Your task to perform on an android device: Clear all items from cart on newegg. Search for bose soundlink on newegg, select the first entry, add it to the cart, then select checkout. Image 0: 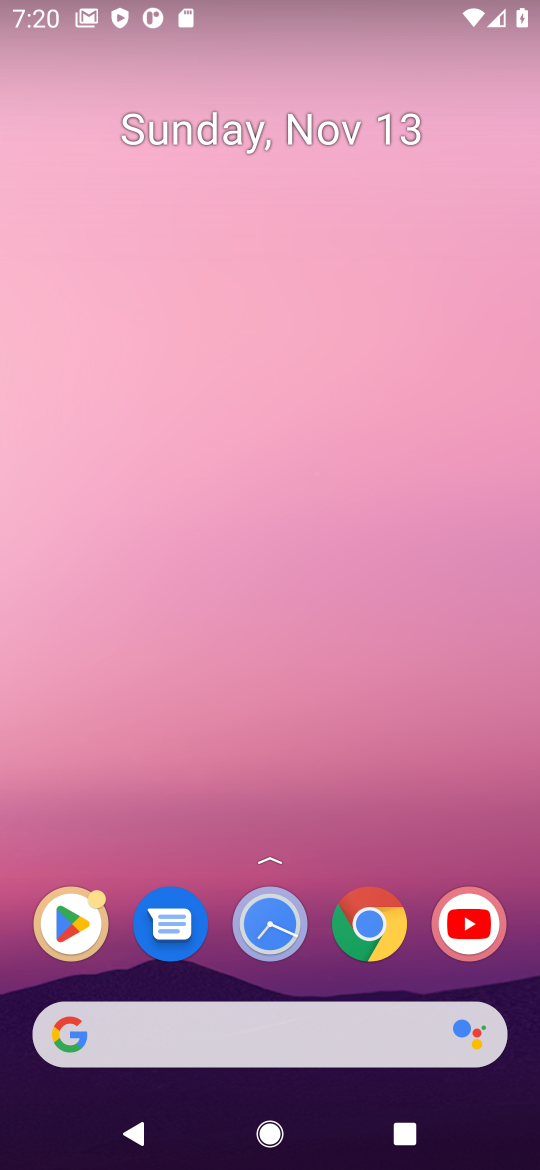
Step 0: click (367, 917)
Your task to perform on an android device: Clear all items from cart on newegg. Search for bose soundlink on newegg, select the first entry, add it to the cart, then select checkout. Image 1: 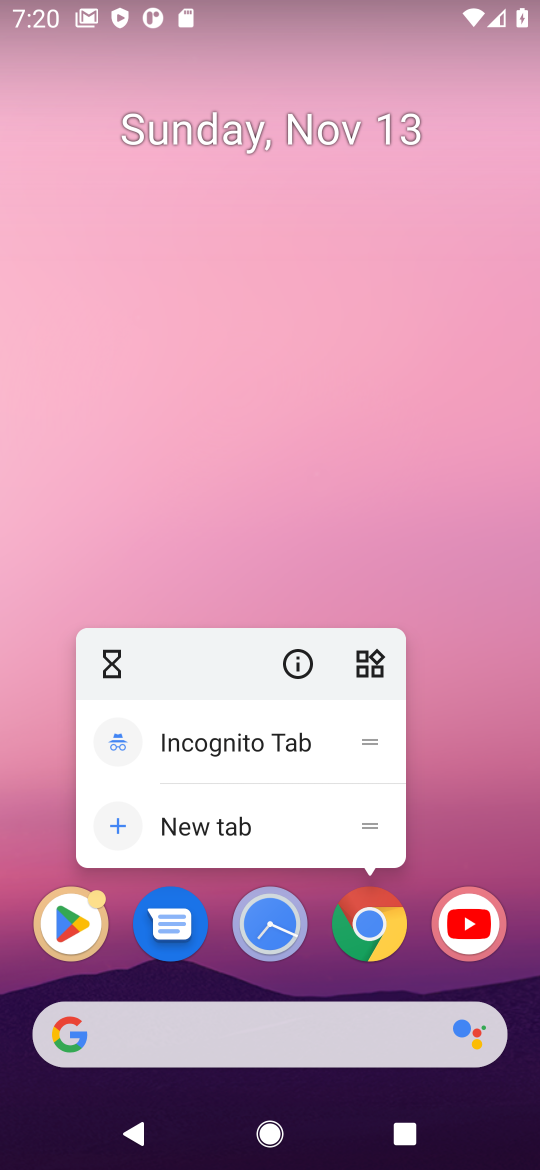
Step 1: click (367, 922)
Your task to perform on an android device: Clear all items from cart on newegg. Search for bose soundlink on newegg, select the first entry, add it to the cart, then select checkout. Image 2: 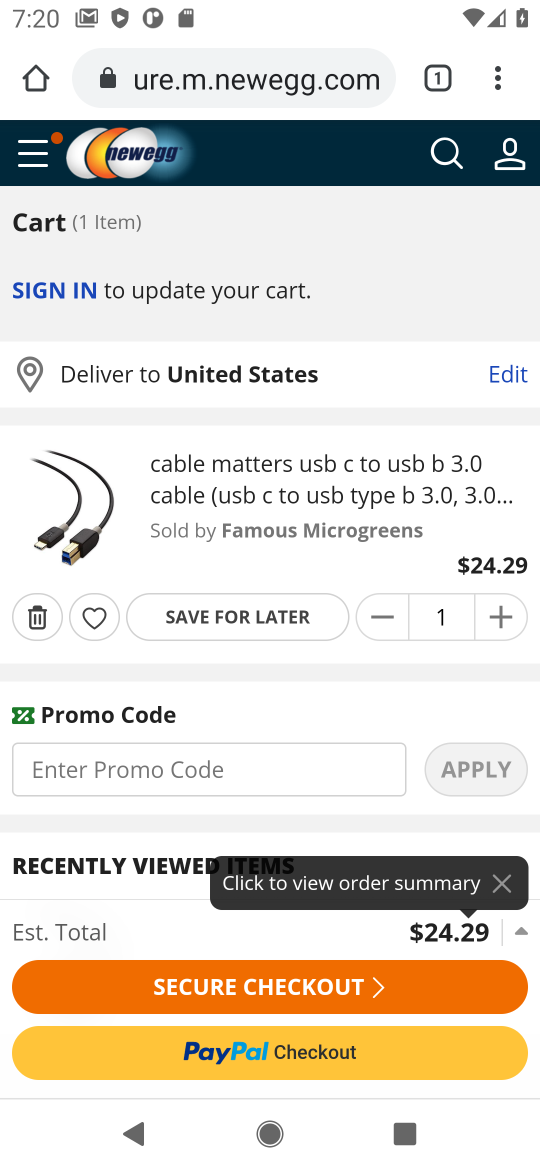
Step 2: click (33, 608)
Your task to perform on an android device: Clear all items from cart on newegg. Search for bose soundlink on newegg, select the first entry, add it to the cart, then select checkout. Image 3: 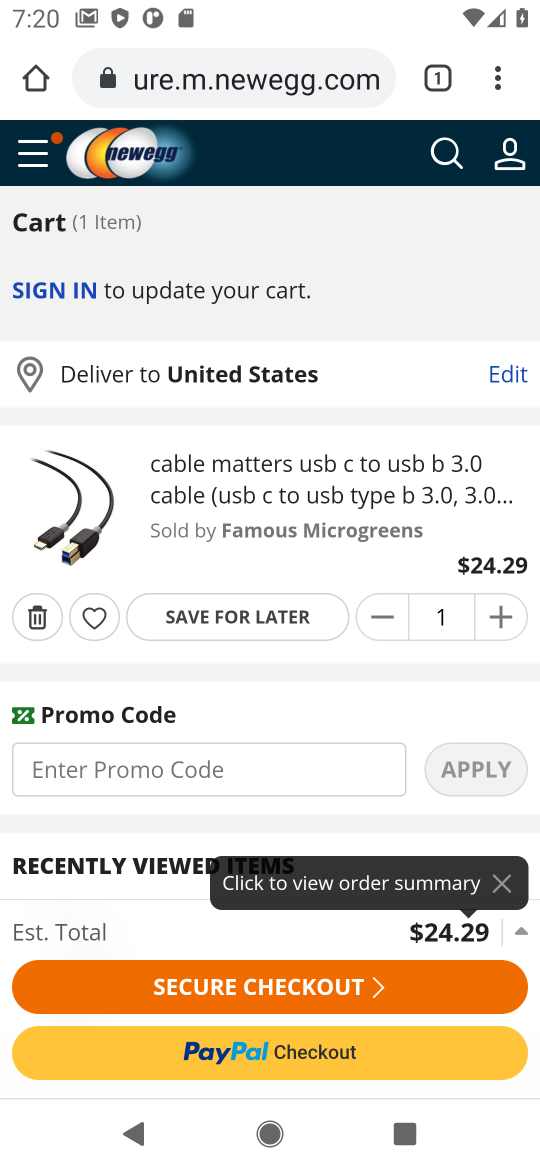
Step 3: click (37, 617)
Your task to perform on an android device: Clear all items from cart on newegg. Search for bose soundlink on newegg, select the first entry, add it to the cart, then select checkout. Image 4: 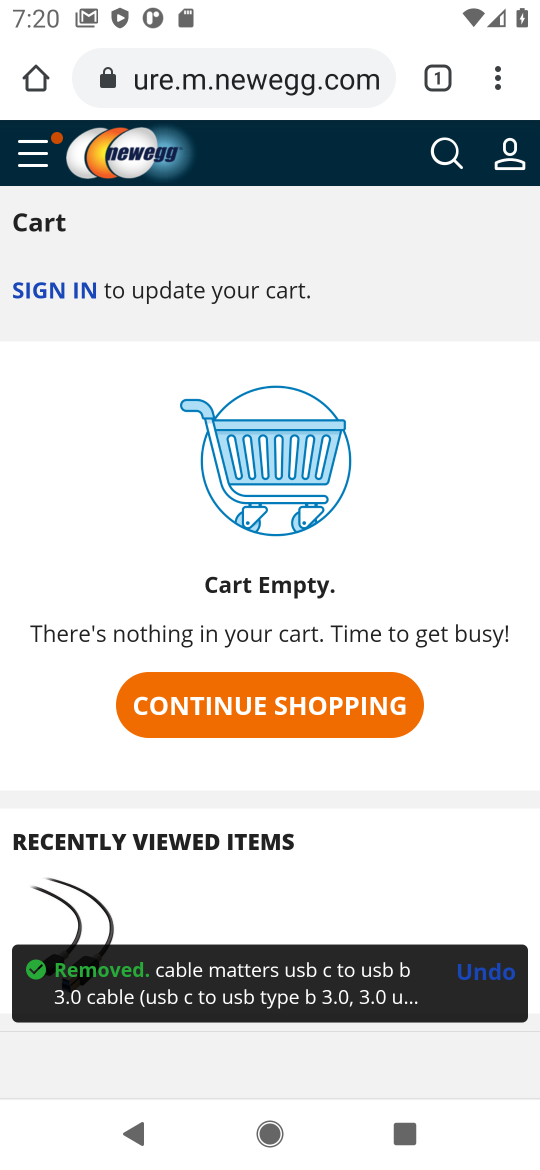
Step 4: click (448, 145)
Your task to perform on an android device: Clear all items from cart on newegg. Search for bose soundlink on newegg, select the first entry, add it to the cart, then select checkout. Image 5: 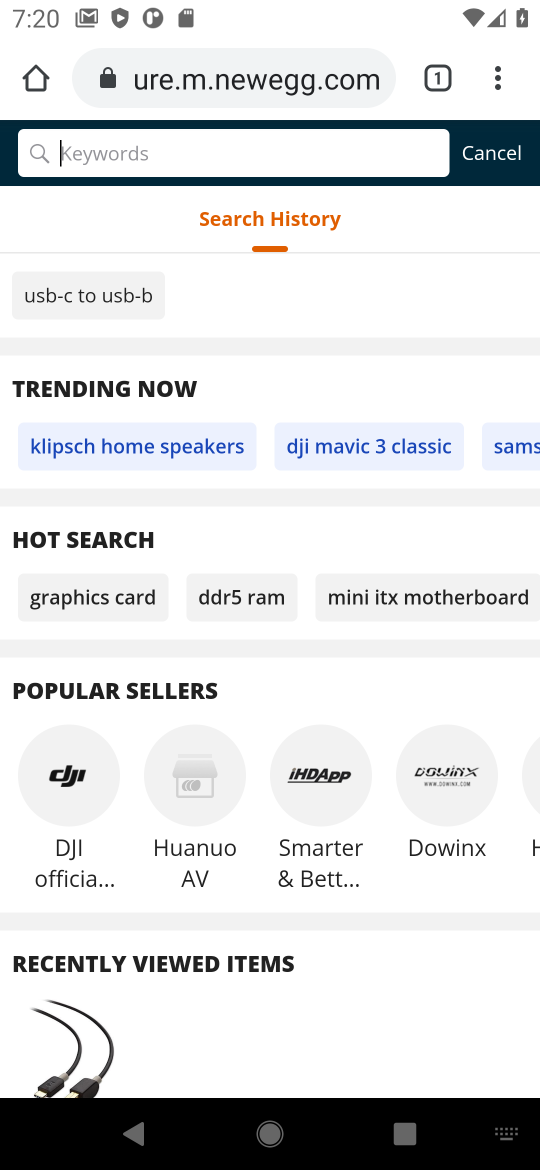
Step 5: type "bose soundlink"
Your task to perform on an android device: Clear all items from cart on newegg. Search for bose soundlink on newegg, select the first entry, add it to the cart, then select checkout. Image 6: 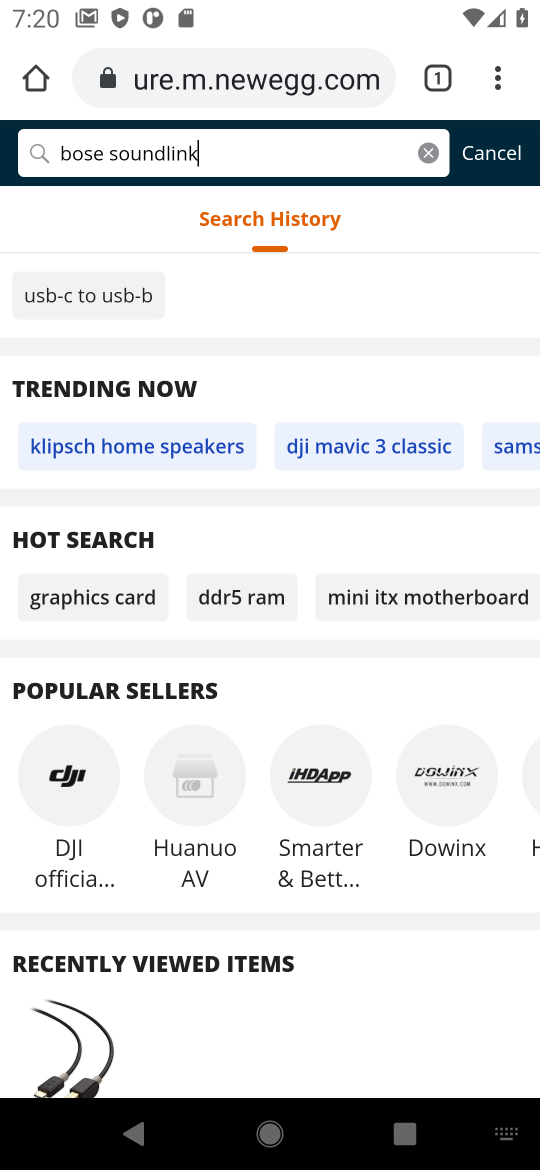
Step 6: press enter
Your task to perform on an android device: Clear all items from cart on newegg. Search for bose soundlink on newegg, select the first entry, add it to the cart, then select checkout. Image 7: 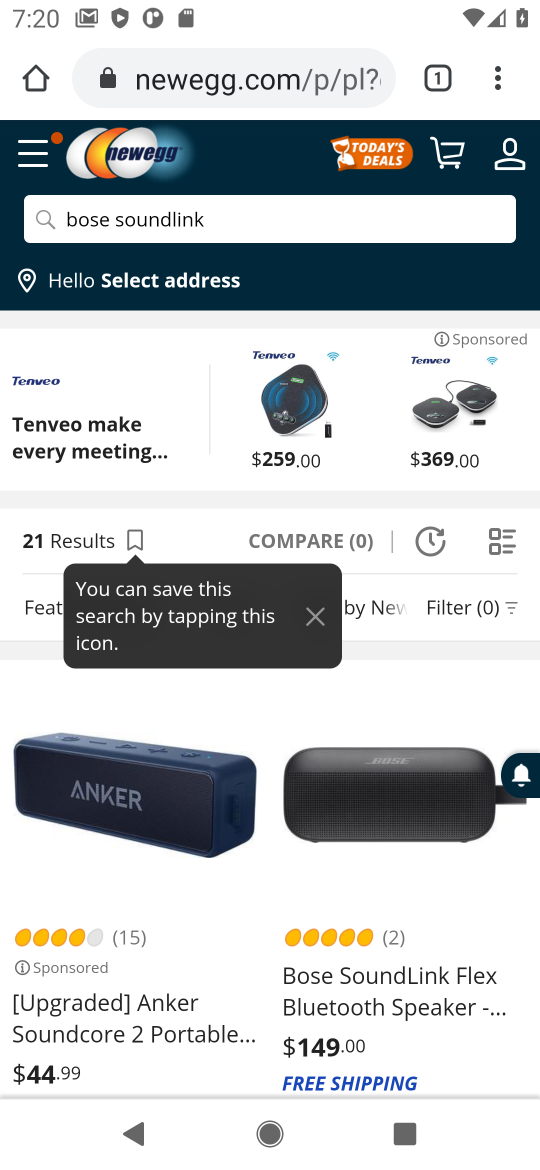
Step 7: task complete